Your task to perform on an android device: turn on improve location accuracy Image 0: 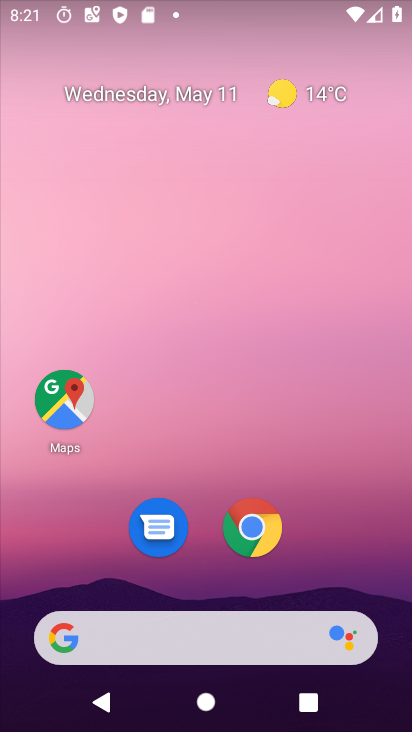
Step 0: drag from (258, 523) to (268, 96)
Your task to perform on an android device: turn on improve location accuracy Image 1: 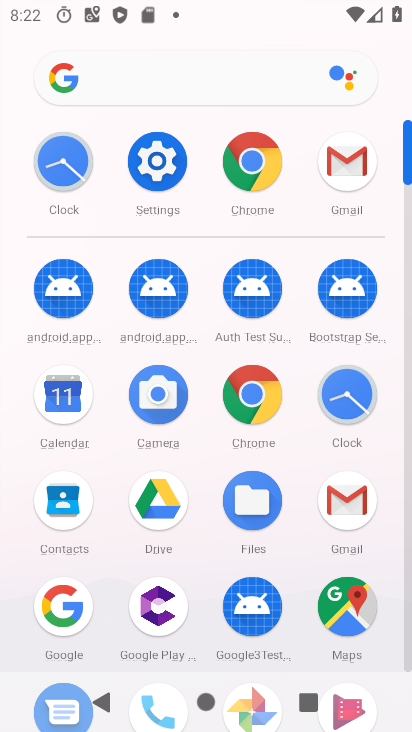
Step 1: click (165, 181)
Your task to perform on an android device: turn on improve location accuracy Image 2: 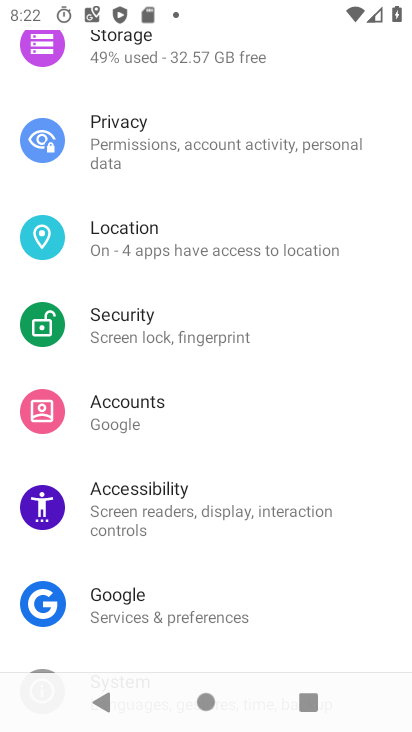
Step 2: drag from (171, 380) to (192, 560)
Your task to perform on an android device: turn on improve location accuracy Image 3: 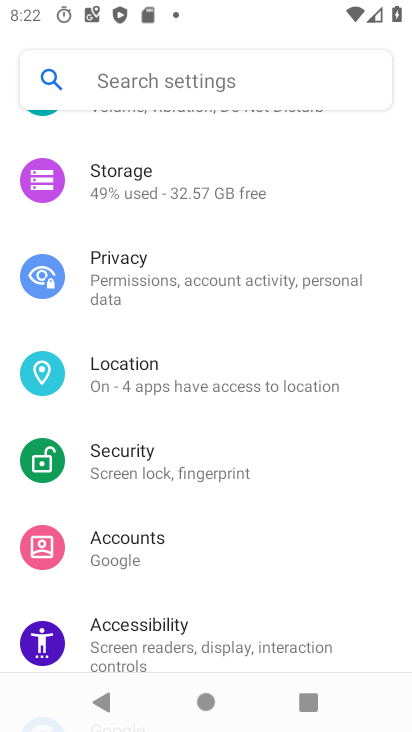
Step 3: drag from (229, 337) to (231, 580)
Your task to perform on an android device: turn on improve location accuracy Image 4: 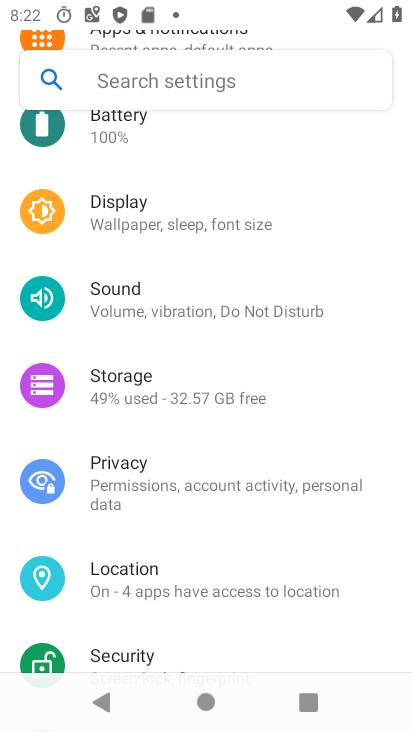
Step 4: drag from (209, 301) to (201, 572)
Your task to perform on an android device: turn on improve location accuracy Image 5: 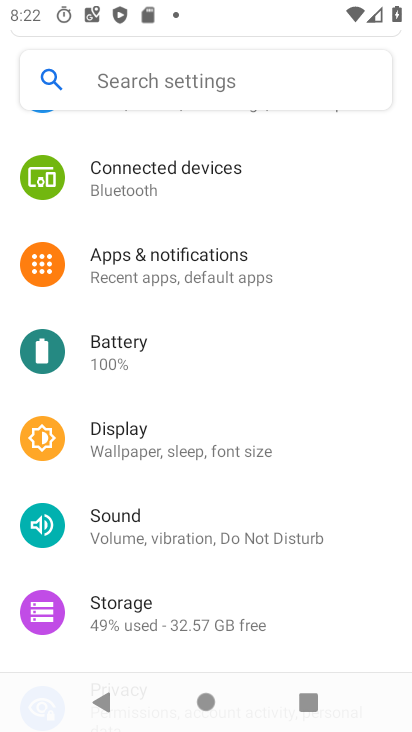
Step 5: drag from (163, 556) to (178, 118)
Your task to perform on an android device: turn on improve location accuracy Image 6: 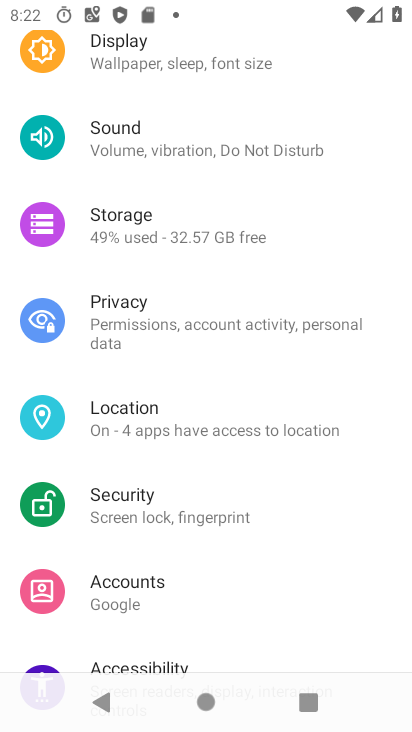
Step 6: click (216, 416)
Your task to perform on an android device: turn on improve location accuracy Image 7: 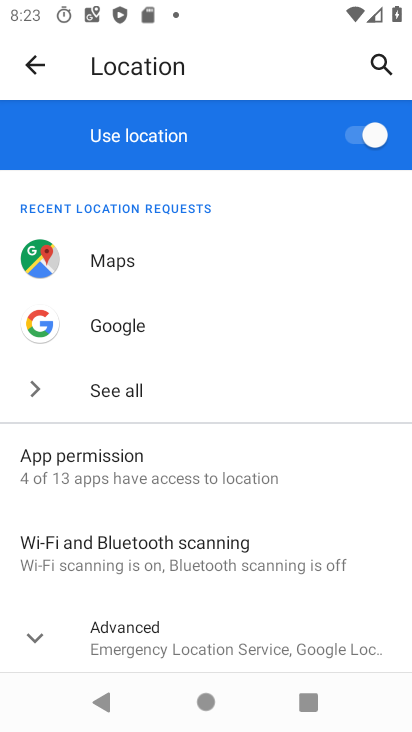
Step 7: click (211, 637)
Your task to perform on an android device: turn on improve location accuracy Image 8: 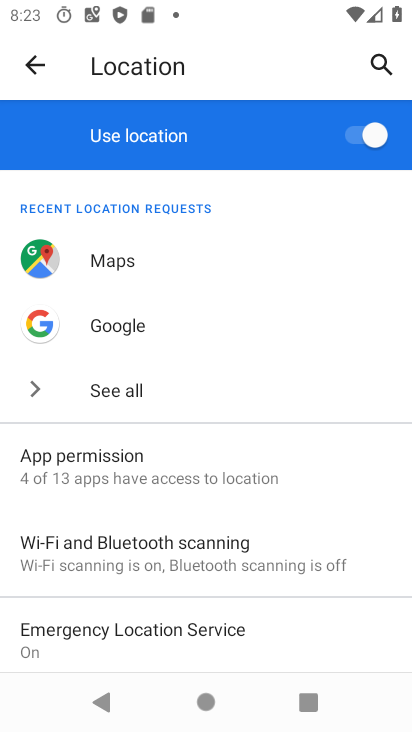
Step 8: drag from (200, 627) to (205, 203)
Your task to perform on an android device: turn on improve location accuracy Image 9: 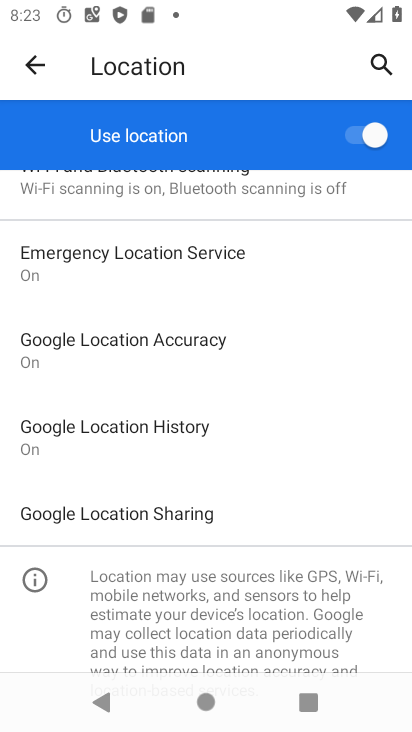
Step 9: click (182, 356)
Your task to perform on an android device: turn on improve location accuracy Image 10: 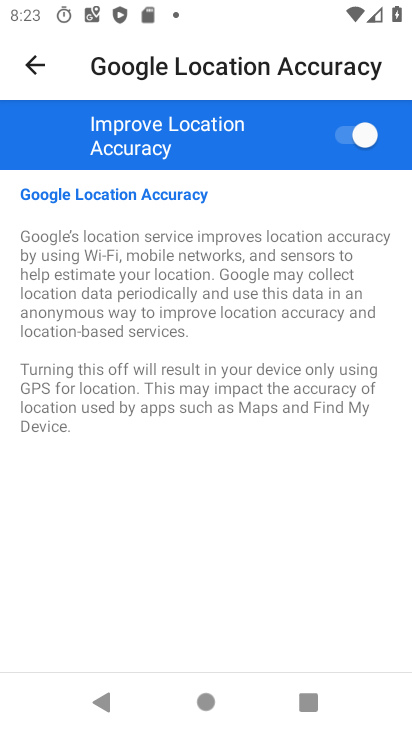
Step 10: task complete